Your task to perform on an android device: Set the phone to "Do not disturb". Image 0: 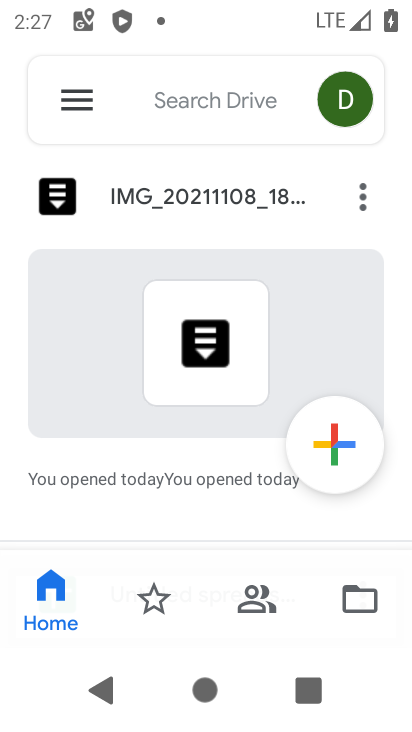
Step 0: press home button
Your task to perform on an android device: Set the phone to "Do not disturb". Image 1: 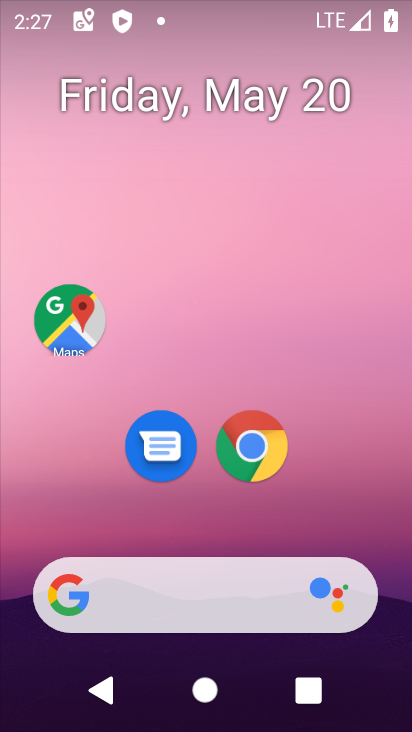
Step 1: drag from (368, 549) to (380, 1)
Your task to perform on an android device: Set the phone to "Do not disturb". Image 2: 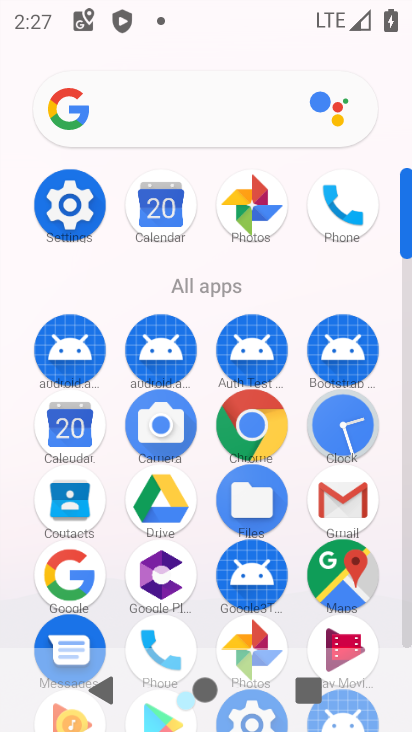
Step 2: click (75, 204)
Your task to perform on an android device: Set the phone to "Do not disturb". Image 3: 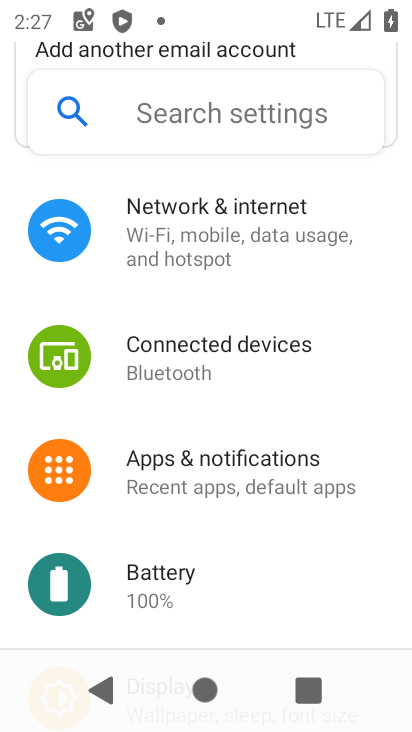
Step 3: drag from (241, 505) to (238, 141)
Your task to perform on an android device: Set the phone to "Do not disturb". Image 4: 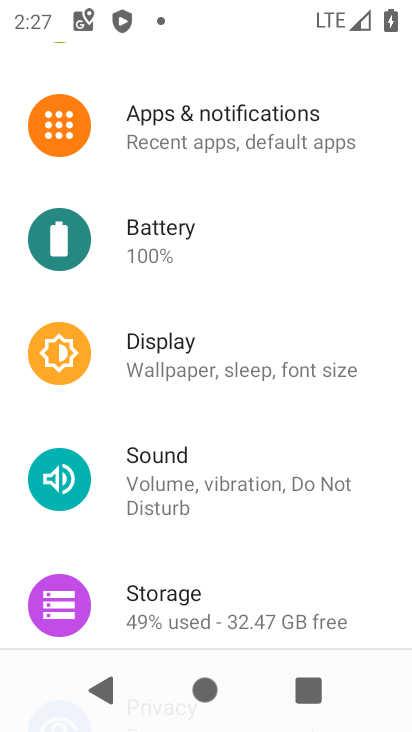
Step 4: click (166, 479)
Your task to perform on an android device: Set the phone to "Do not disturb". Image 5: 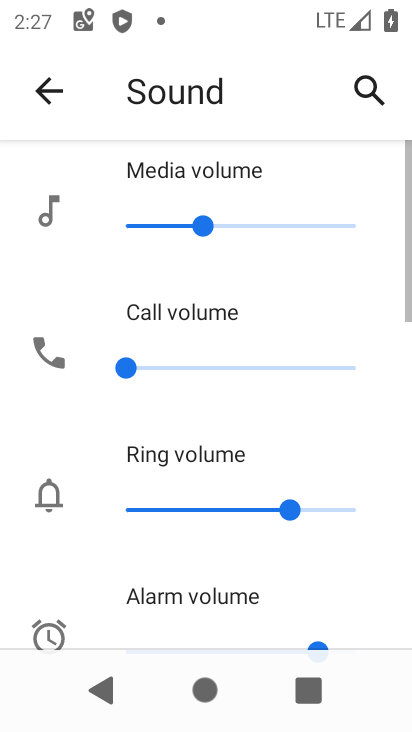
Step 5: drag from (247, 540) to (216, 122)
Your task to perform on an android device: Set the phone to "Do not disturb". Image 6: 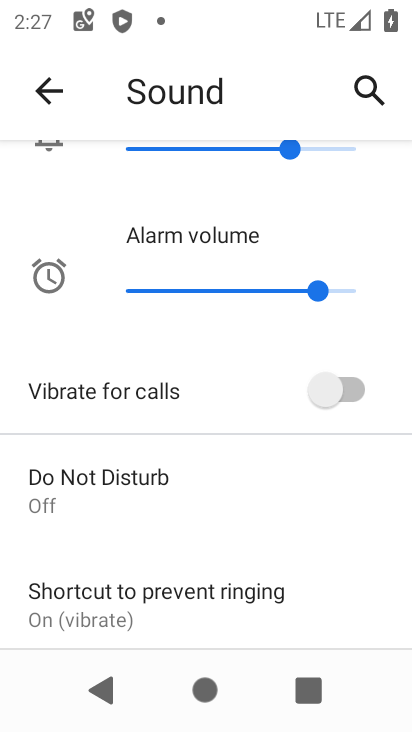
Step 6: drag from (154, 486) to (168, 294)
Your task to perform on an android device: Set the phone to "Do not disturb". Image 7: 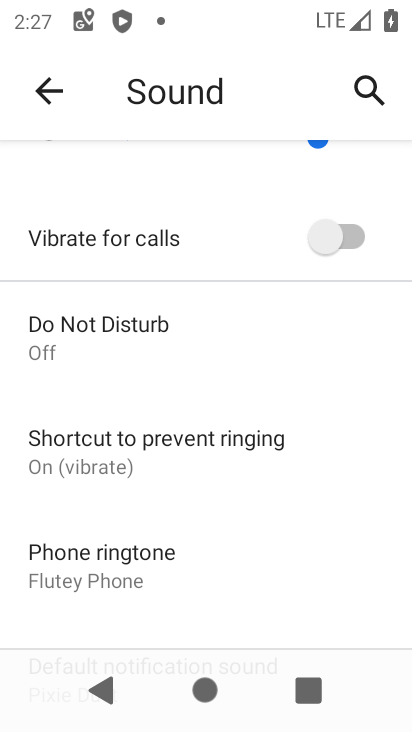
Step 7: click (94, 334)
Your task to perform on an android device: Set the phone to "Do not disturb". Image 8: 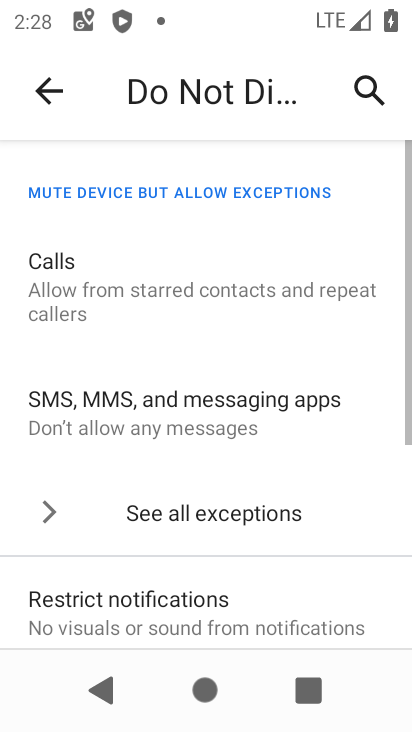
Step 8: drag from (199, 526) to (207, 169)
Your task to perform on an android device: Set the phone to "Do not disturb". Image 9: 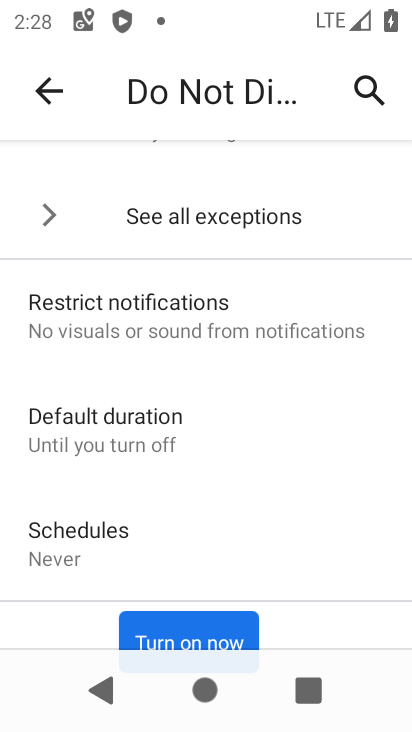
Step 9: click (181, 628)
Your task to perform on an android device: Set the phone to "Do not disturb". Image 10: 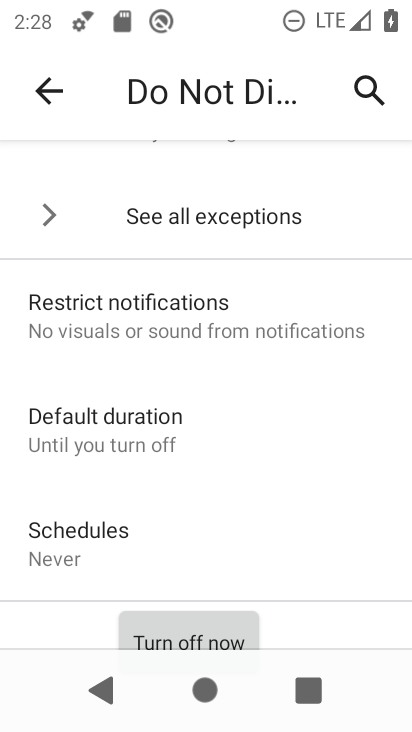
Step 10: task complete